Your task to perform on an android device: Go to settings Image 0: 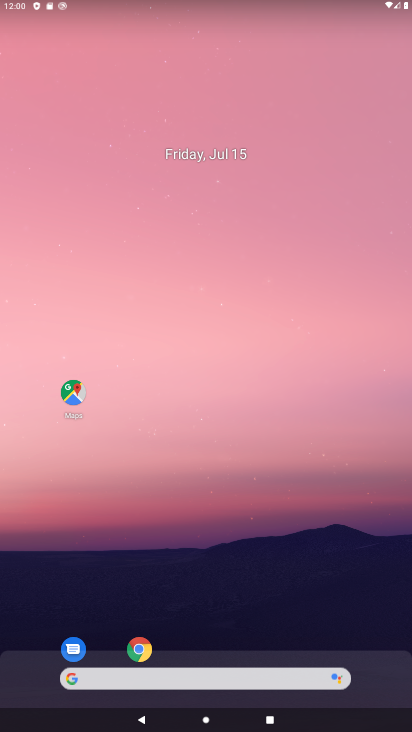
Step 0: drag from (326, 596) to (331, 43)
Your task to perform on an android device: Go to settings Image 1: 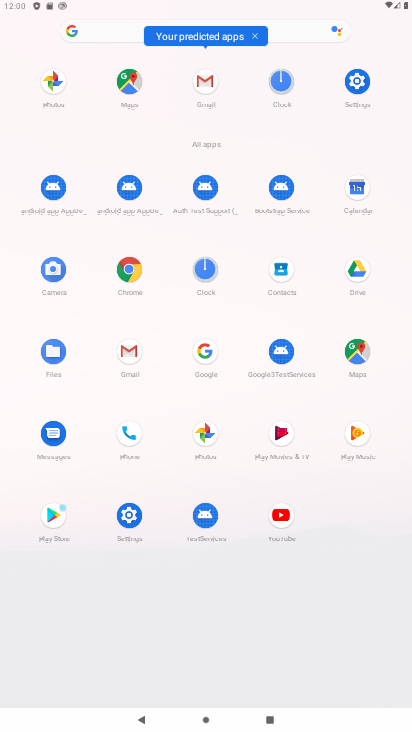
Step 1: click (371, 95)
Your task to perform on an android device: Go to settings Image 2: 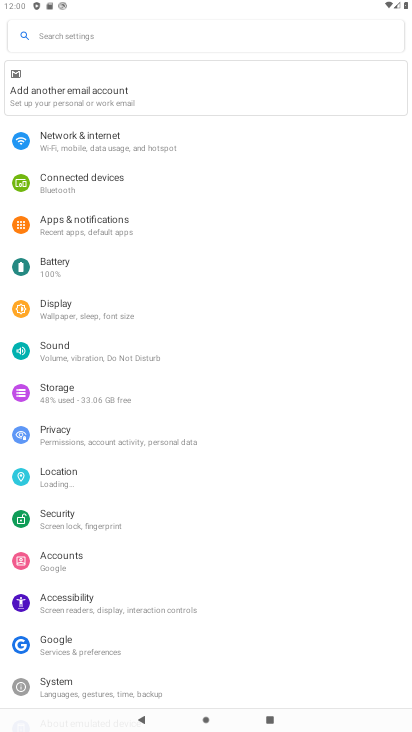
Step 2: task complete